Your task to perform on an android device: move a message to another label in the gmail app Image 0: 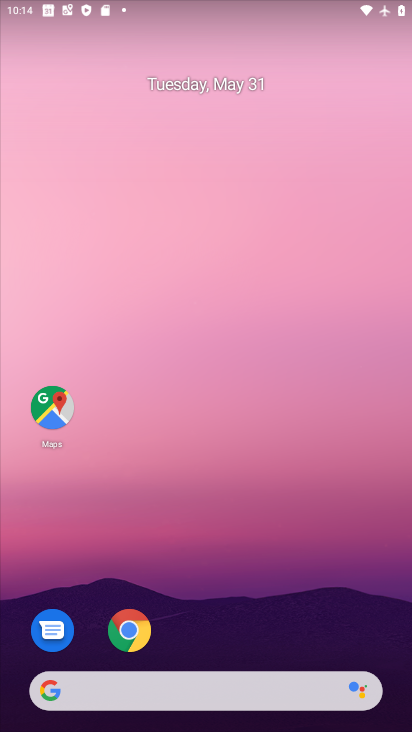
Step 0: drag from (270, 623) to (240, 182)
Your task to perform on an android device: move a message to another label in the gmail app Image 1: 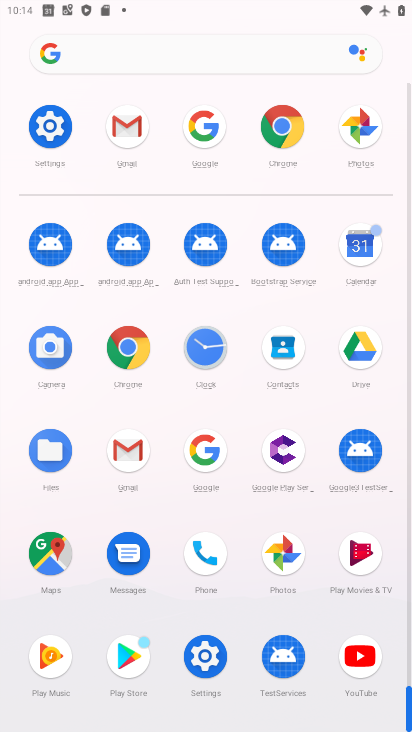
Step 1: click (123, 440)
Your task to perform on an android device: move a message to another label in the gmail app Image 2: 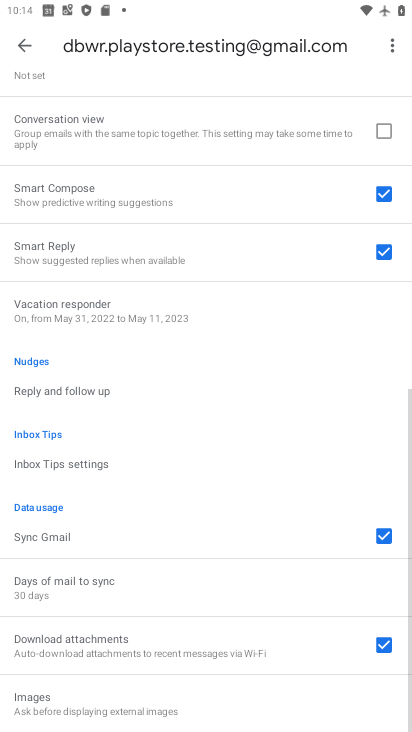
Step 2: click (29, 41)
Your task to perform on an android device: move a message to another label in the gmail app Image 3: 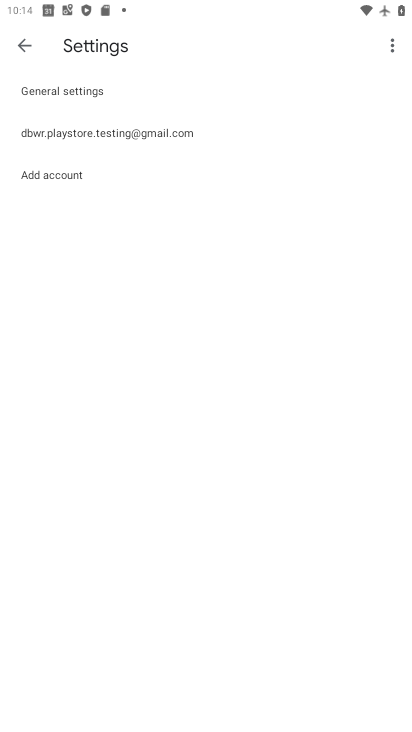
Step 3: click (35, 41)
Your task to perform on an android device: move a message to another label in the gmail app Image 4: 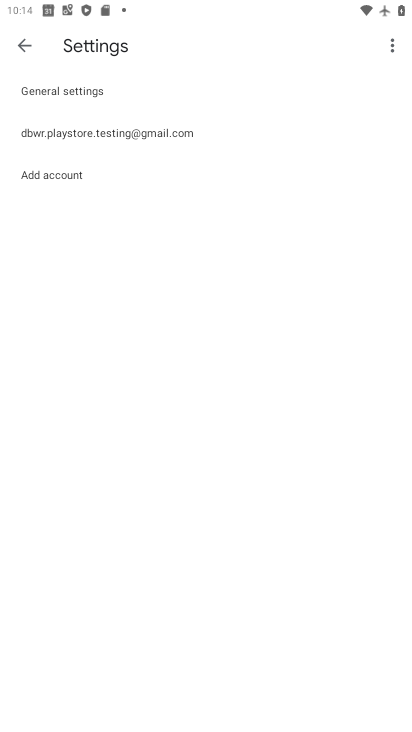
Step 4: click (28, 45)
Your task to perform on an android device: move a message to another label in the gmail app Image 5: 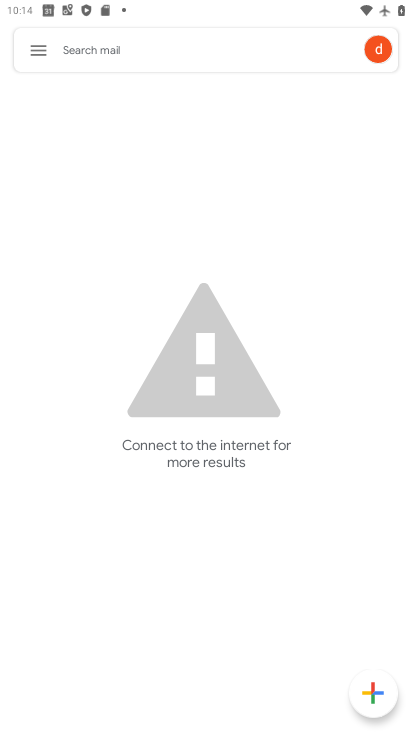
Step 5: click (46, 37)
Your task to perform on an android device: move a message to another label in the gmail app Image 6: 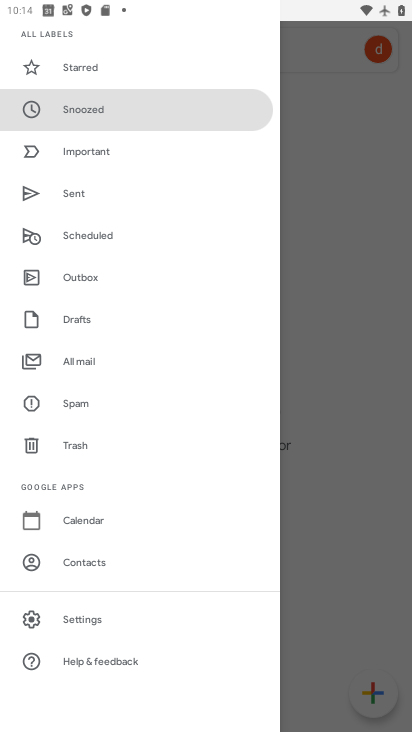
Step 6: drag from (125, 544) to (133, 360)
Your task to perform on an android device: move a message to another label in the gmail app Image 7: 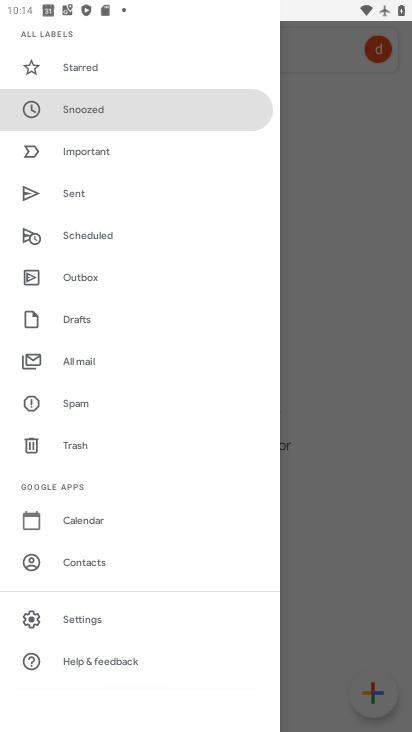
Step 7: click (72, 611)
Your task to perform on an android device: move a message to another label in the gmail app Image 8: 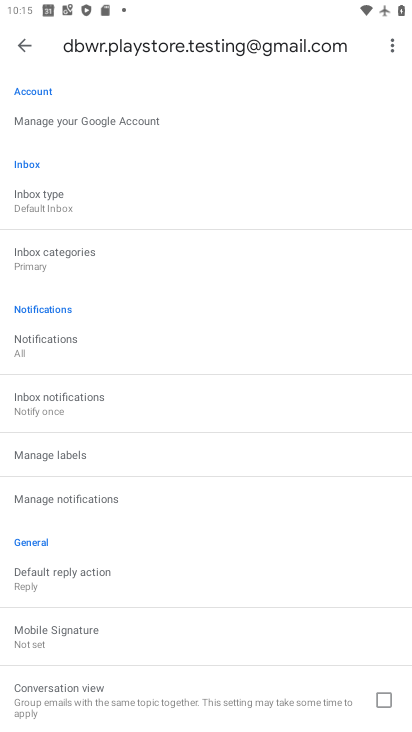
Step 8: task complete